Your task to perform on an android device: check android version Image 0: 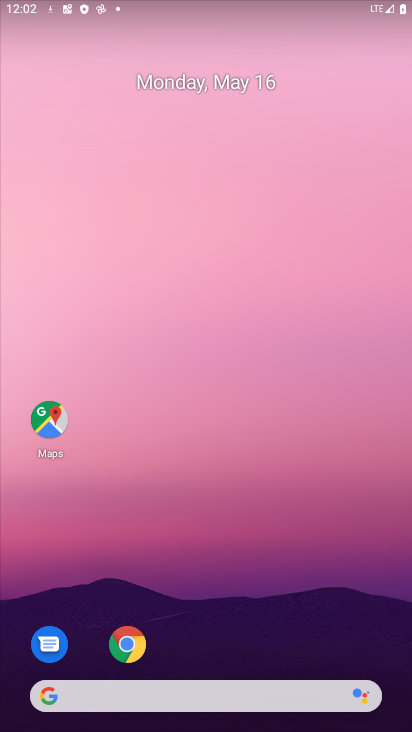
Step 0: drag from (173, 697) to (254, 391)
Your task to perform on an android device: check android version Image 1: 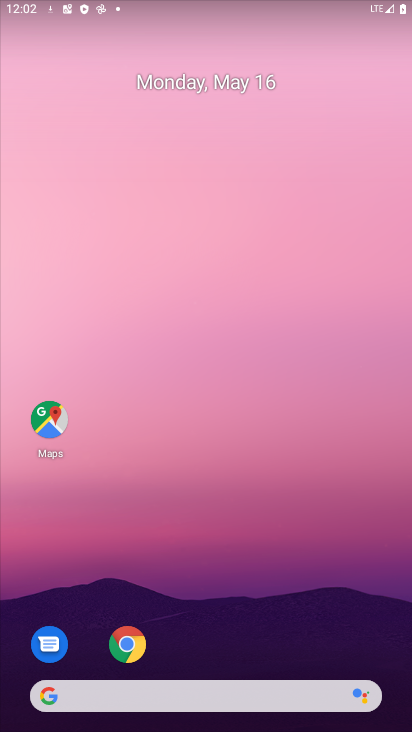
Step 1: drag from (165, 718) to (365, 247)
Your task to perform on an android device: check android version Image 2: 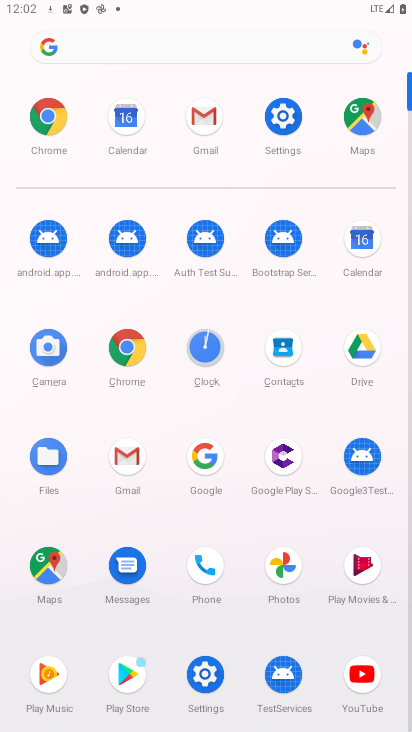
Step 2: click (285, 124)
Your task to perform on an android device: check android version Image 3: 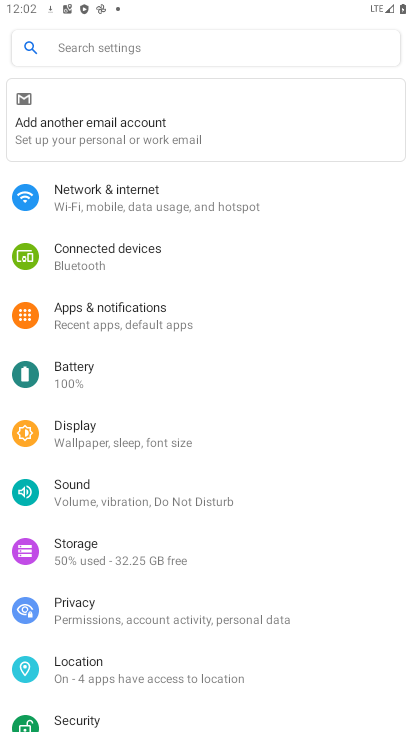
Step 3: click (95, 45)
Your task to perform on an android device: check android version Image 4: 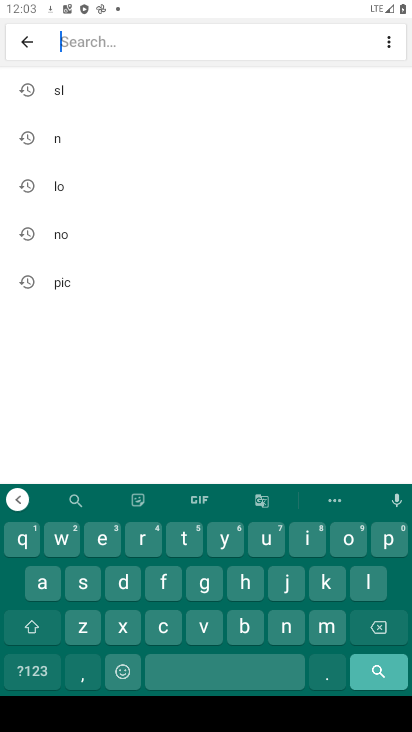
Step 4: click (38, 590)
Your task to perform on an android device: check android version Image 5: 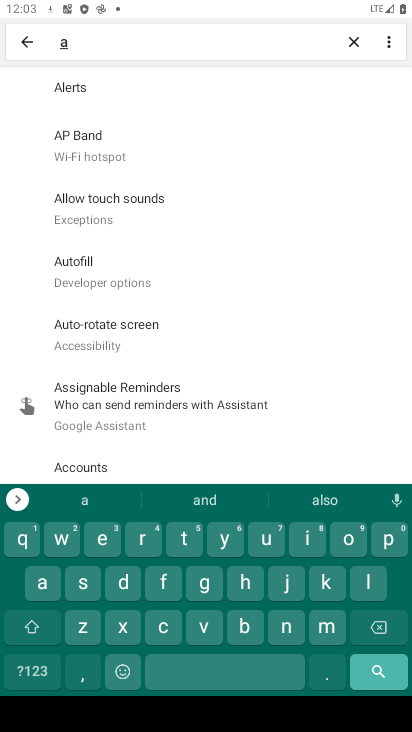
Step 5: click (298, 625)
Your task to perform on an android device: check android version Image 6: 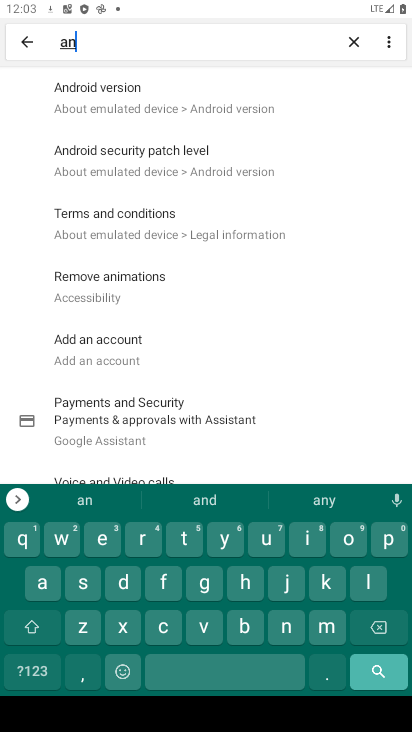
Step 6: click (104, 99)
Your task to perform on an android device: check android version Image 7: 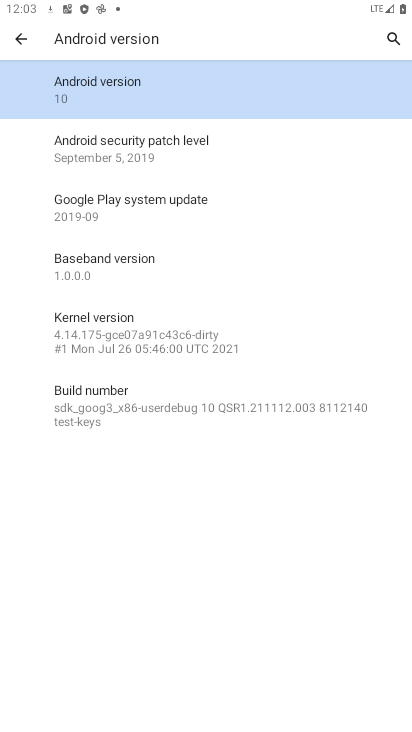
Step 7: task complete